Your task to perform on an android device: turn off data saver in the chrome app Image 0: 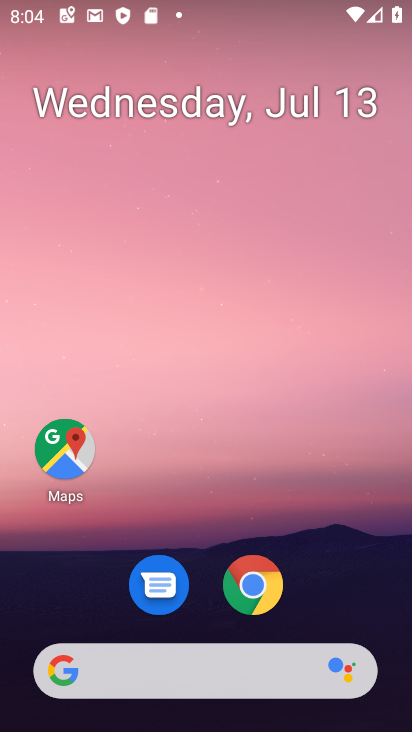
Step 0: click (263, 594)
Your task to perform on an android device: turn off data saver in the chrome app Image 1: 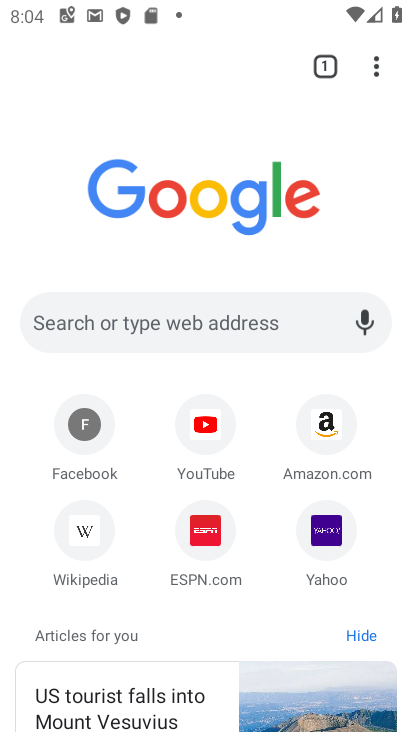
Step 1: click (374, 69)
Your task to perform on an android device: turn off data saver in the chrome app Image 2: 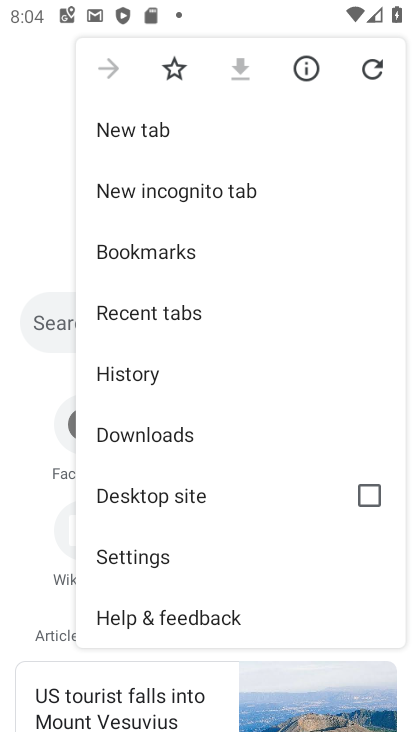
Step 2: click (148, 553)
Your task to perform on an android device: turn off data saver in the chrome app Image 3: 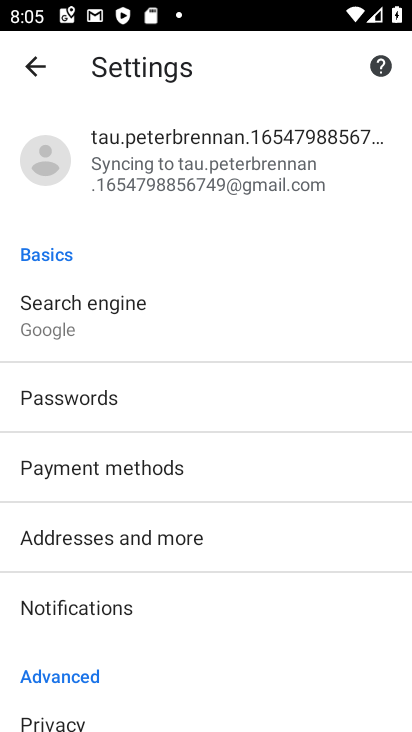
Step 3: drag from (208, 591) to (201, 135)
Your task to perform on an android device: turn off data saver in the chrome app Image 4: 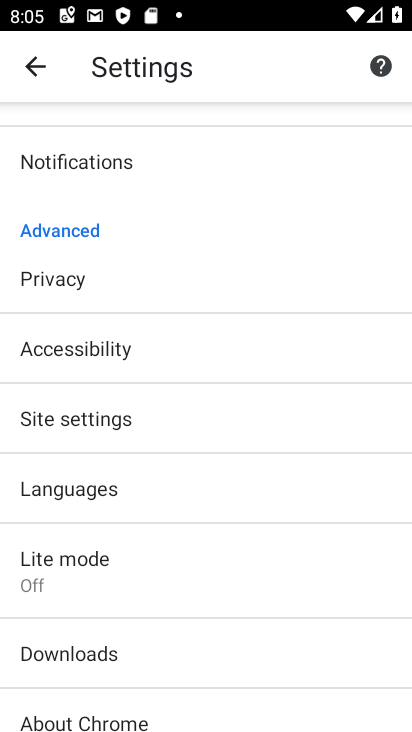
Step 4: click (155, 585)
Your task to perform on an android device: turn off data saver in the chrome app Image 5: 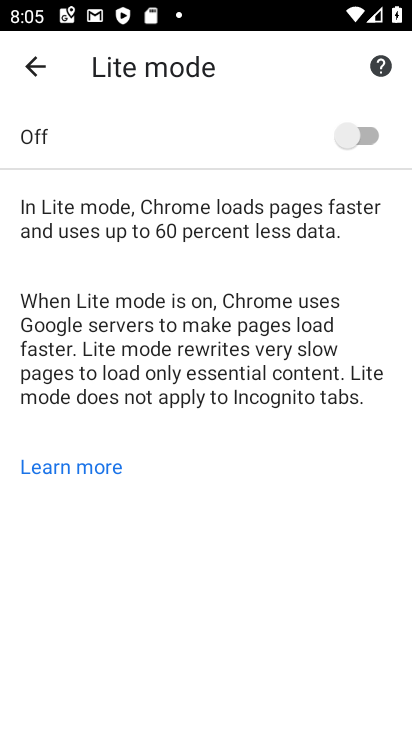
Step 5: click (363, 125)
Your task to perform on an android device: turn off data saver in the chrome app Image 6: 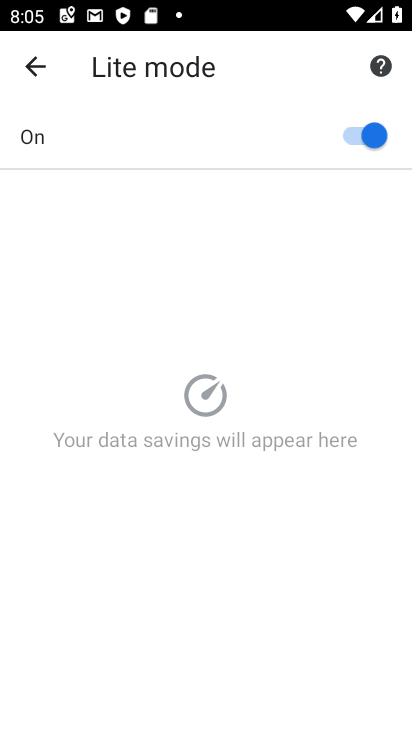
Step 6: click (359, 128)
Your task to perform on an android device: turn off data saver in the chrome app Image 7: 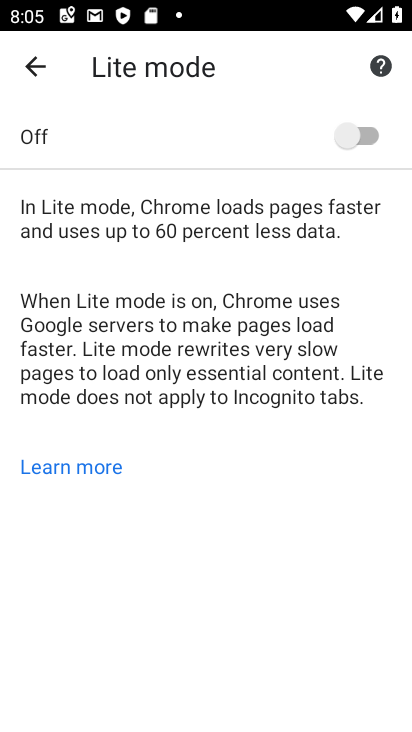
Step 7: task complete